Your task to perform on an android device: Go to Google Image 0: 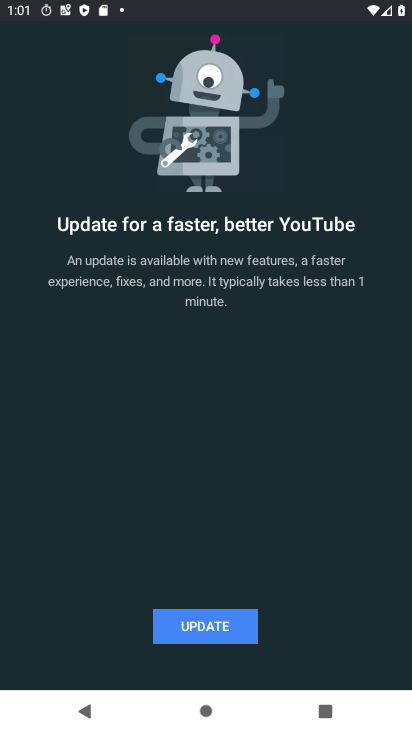
Step 0: press home button
Your task to perform on an android device: Go to Google Image 1: 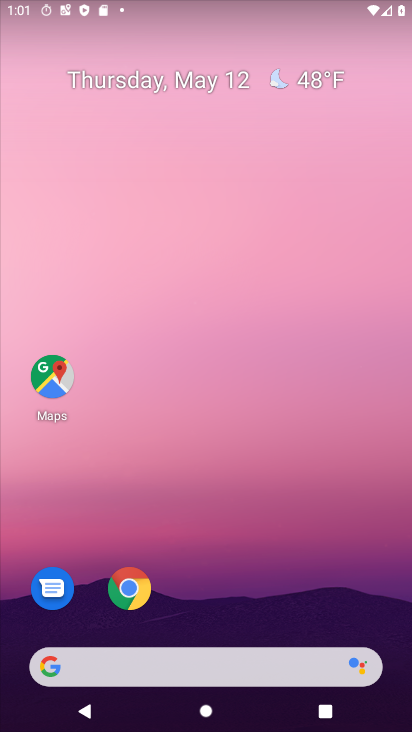
Step 1: drag from (223, 595) to (228, 114)
Your task to perform on an android device: Go to Google Image 2: 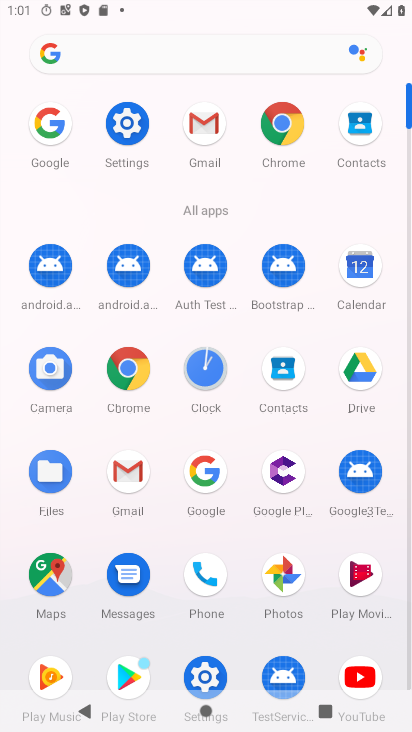
Step 2: click (55, 114)
Your task to perform on an android device: Go to Google Image 3: 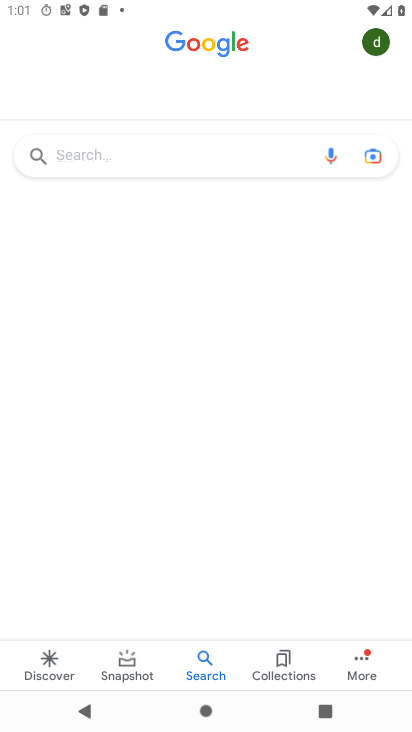
Step 3: task complete